Your task to perform on an android device: Open privacy settings Image 0: 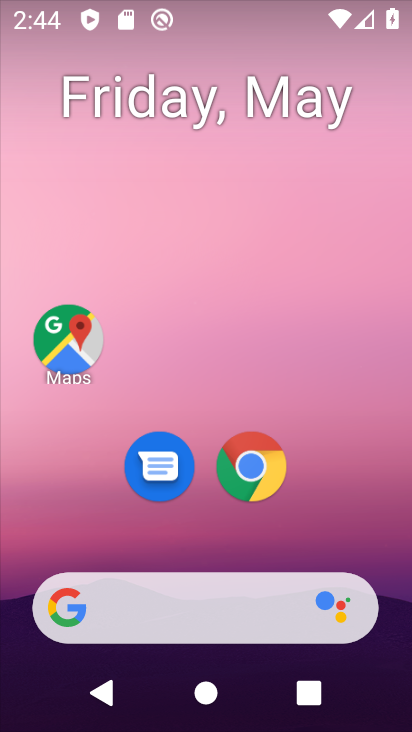
Step 0: drag from (229, 538) to (239, 6)
Your task to perform on an android device: Open privacy settings Image 1: 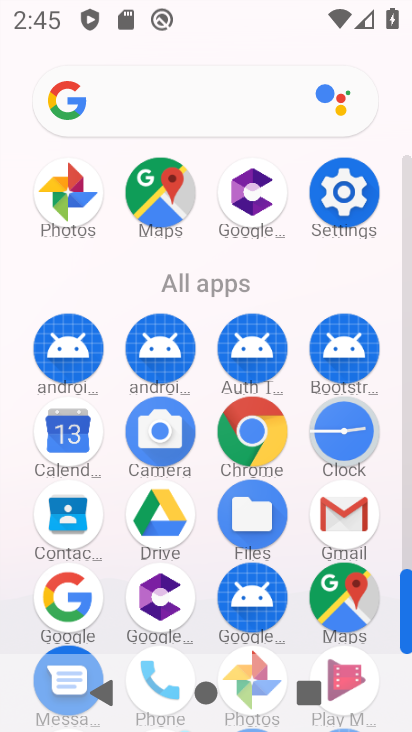
Step 1: click (334, 194)
Your task to perform on an android device: Open privacy settings Image 2: 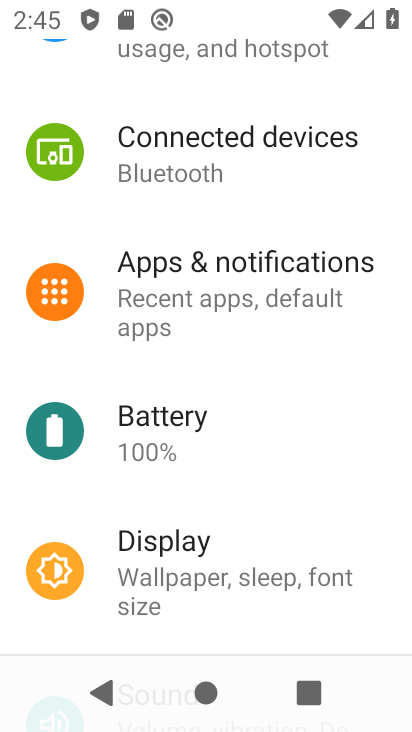
Step 2: drag from (213, 413) to (216, 23)
Your task to perform on an android device: Open privacy settings Image 3: 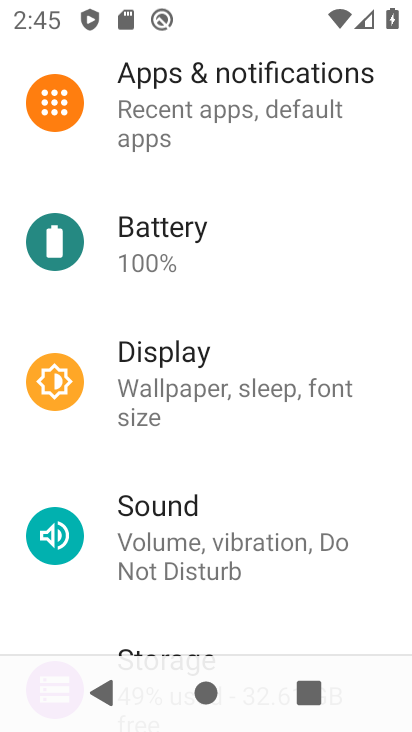
Step 3: drag from (192, 561) to (220, 113)
Your task to perform on an android device: Open privacy settings Image 4: 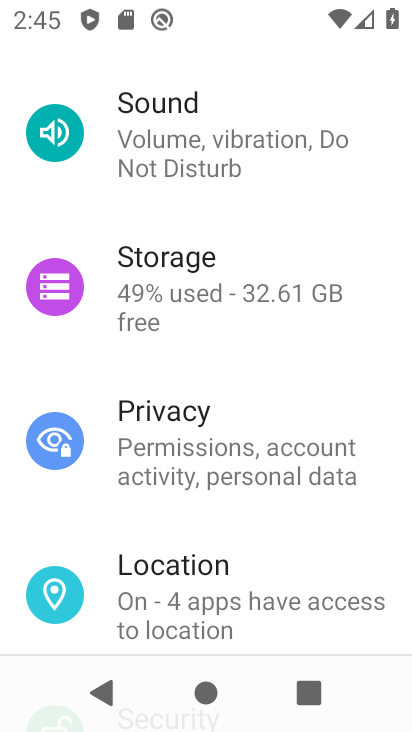
Step 4: click (162, 440)
Your task to perform on an android device: Open privacy settings Image 5: 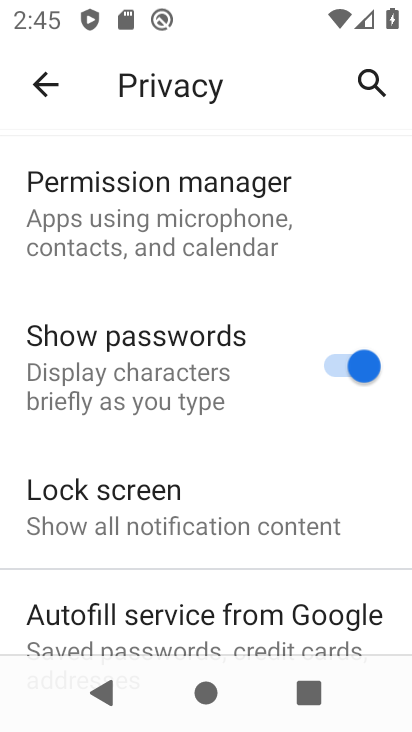
Step 5: task complete